Your task to perform on an android device: Open sound settings Image 0: 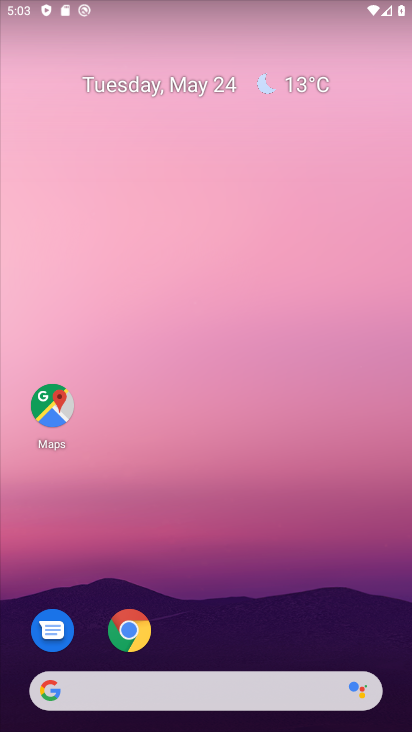
Step 0: drag from (229, 588) to (232, 73)
Your task to perform on an android device: Open sound settings Image 1: 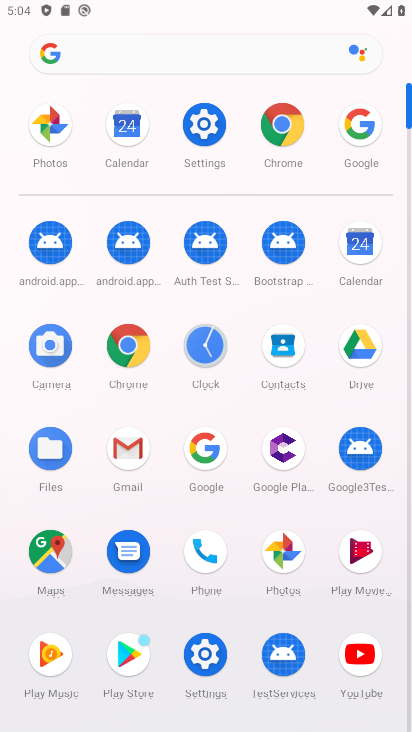
Step 1: click (205, 123)
Your task to perform on an android device: Open sound settings Image 2: 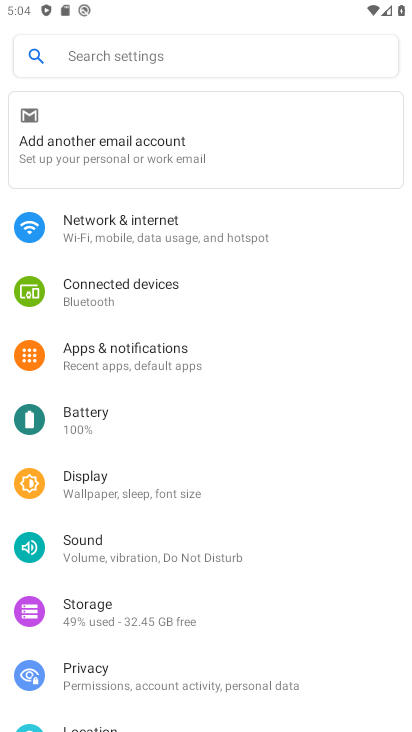
Step 2: click (96, 555)
Your task to perform on an android device: Open sound settings Image 3: 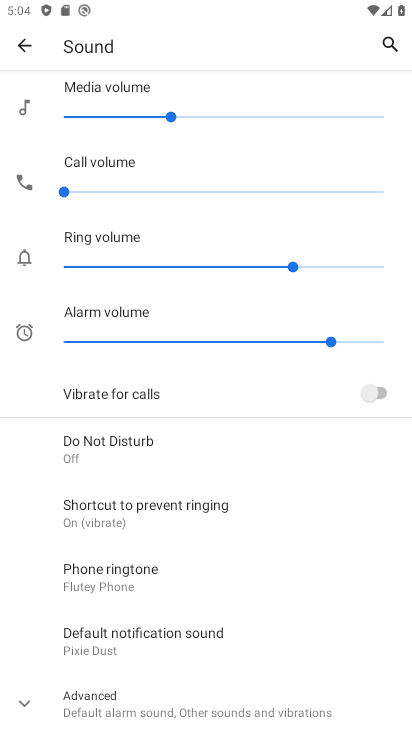
Step 3: task complete